Your task to perform on an android device: turn off javascript in the chrome app Image 0: 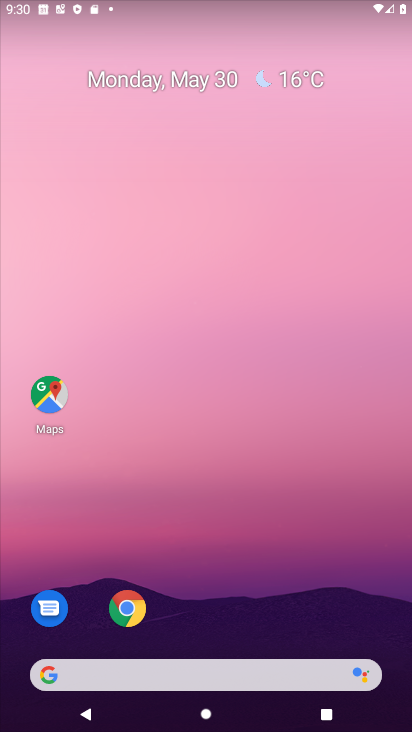
Step 0: click (134, 609)
Your task to perform on an android device: turn off javascript in the chrome app Image 1: 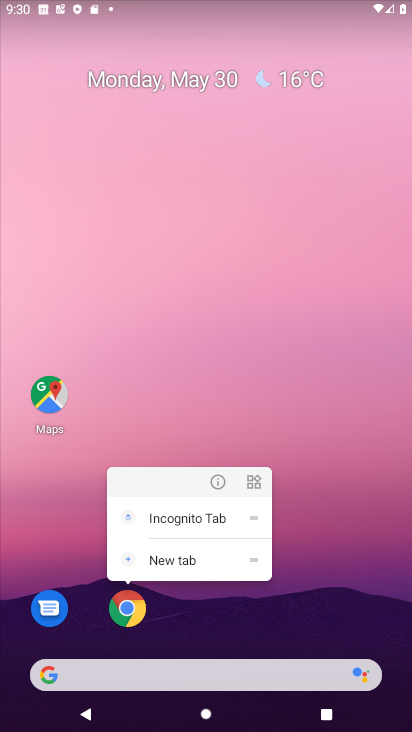
Step 1: click (134, 605)
Your task to perform on an android device: turn off javascript in the chrome app Image 2: 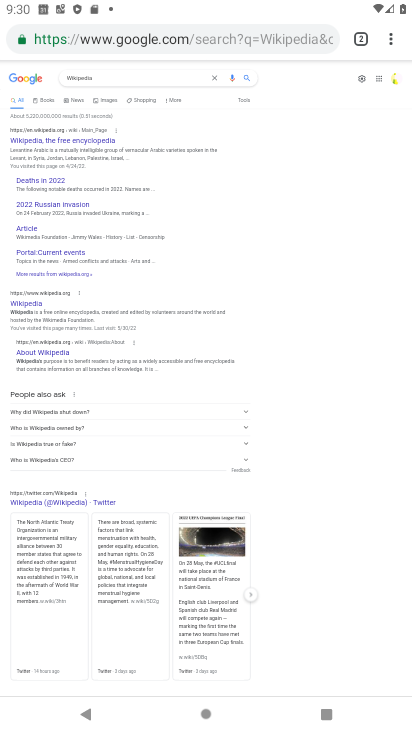
Step 2: click (390, 39)
Your task to perform on an android device: turn off javascript in the chrome app Image 3: 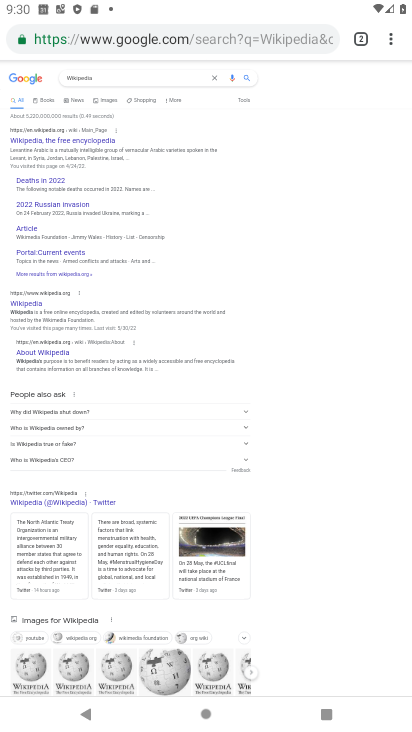
Step 3: click (390, 40)
Your task to perform on an android device: turn off javascript in the chrome app Image 4: 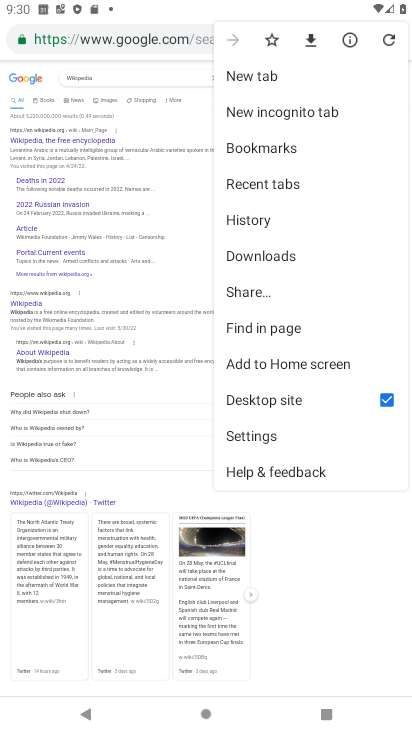
Step 4: click (253, 436)
Your task to perform on an android device: turn off javascript in the chrome app Image 5: 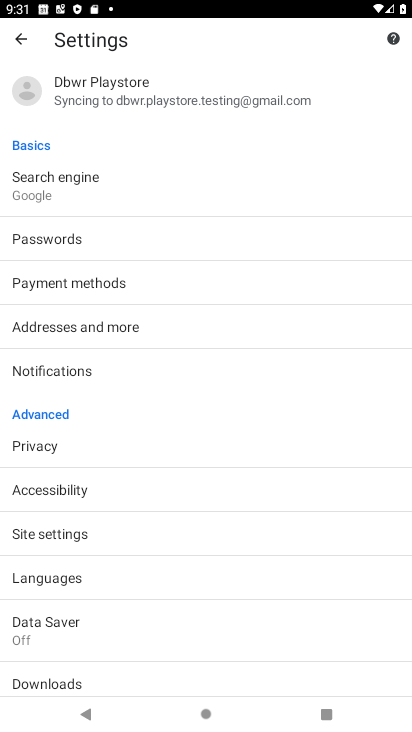
Step 5: click (59, 535)
Your task to perform on an android device: turn off javascript in the chrome app Image 6: 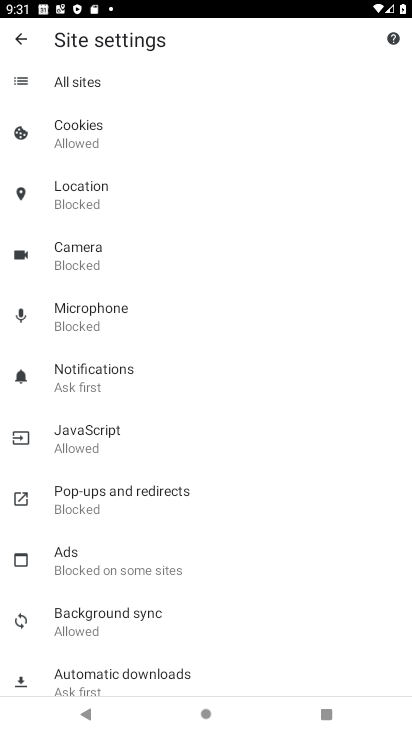
Step 6: click (96, 445)
Your task to perform on an android device: turn off javascript in the chrome app Image 7: 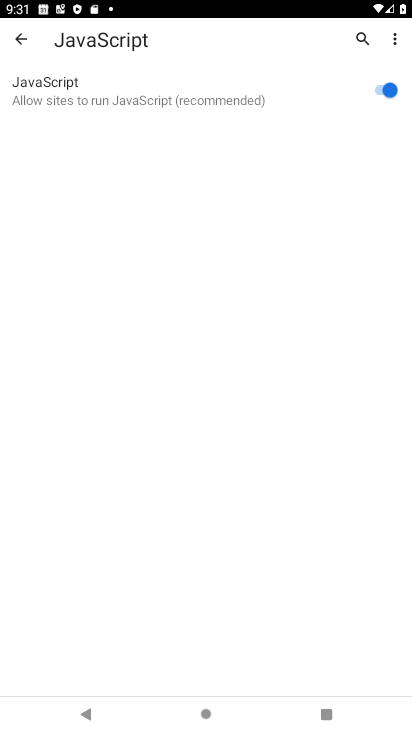
Step 7: click (378, 88)
Your task to perform on an android device: turn off javascript in the chrome app Image 8: 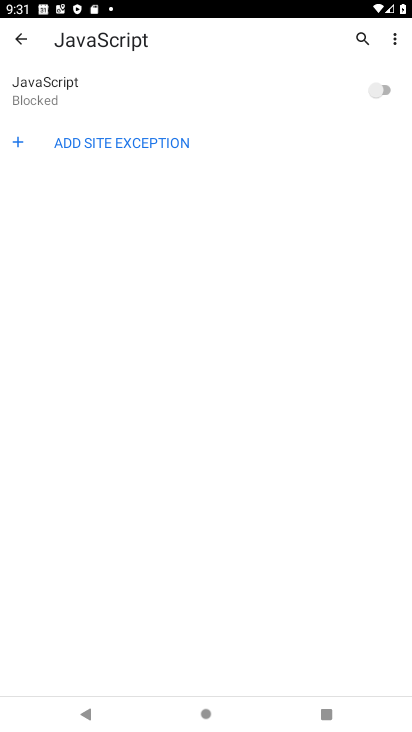
Step 8: task complete